Your task to perform on an android device: Go to Android settings Image 0: 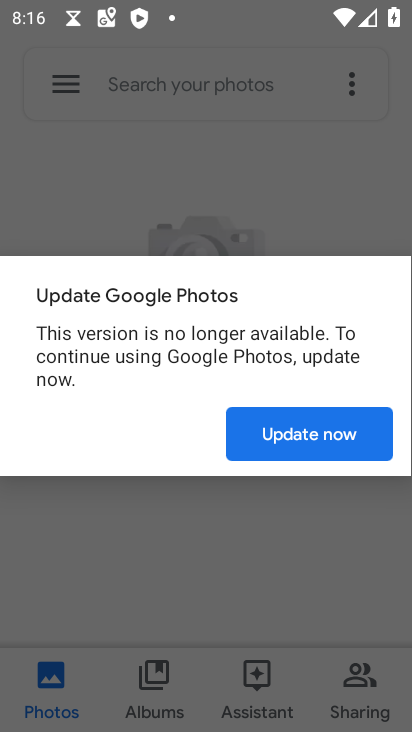
Step 0: press back button
Your task to perform on an android device: Go to Android settings Image 1: 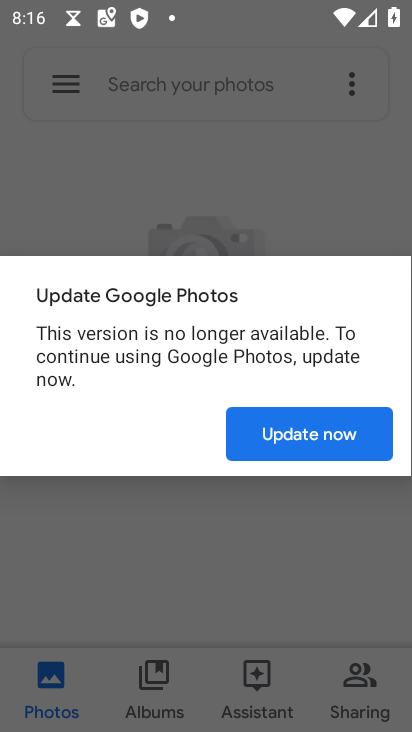
Step 1: press home button
Your task to perform on an android device: Go to Android settings Image 2: 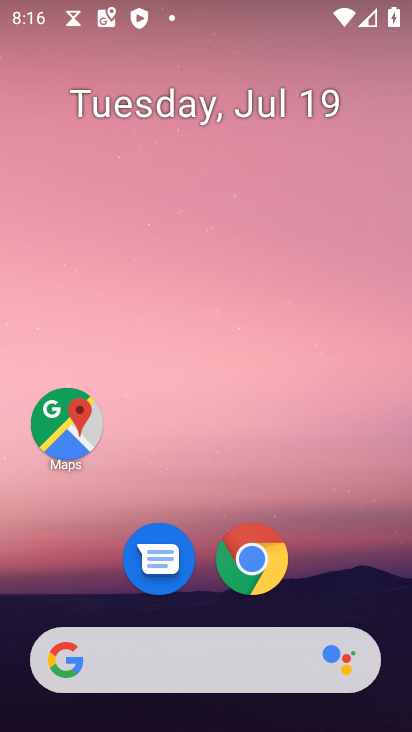
Step 2: drag from (71, 585) to (313, 11)
Your task to perform on an android device: Go to Android settings Image 3: 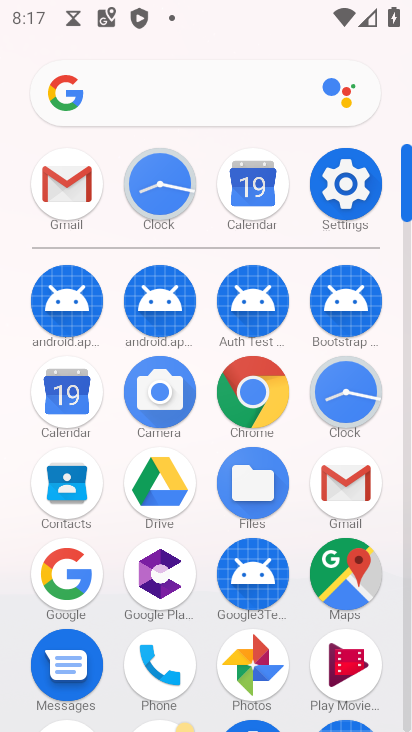
Step 3: click (342, 166)
Your task to perform on an android device: Go to Android settings Image 4: 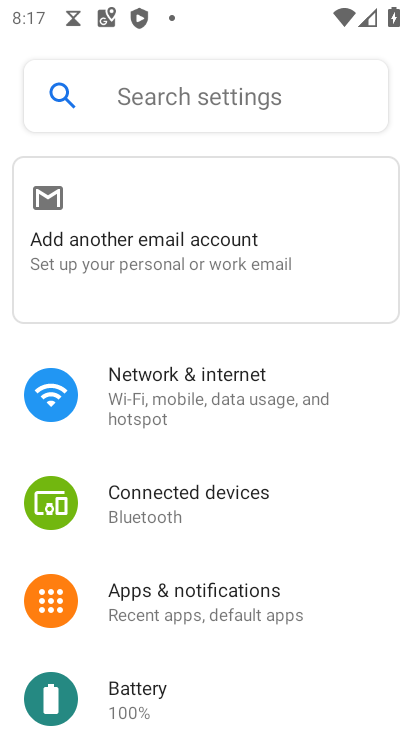
Step 4: drag from (146, 656) to (234, 19)
Your task to perform on an android device: Go to Android settings Image 5: 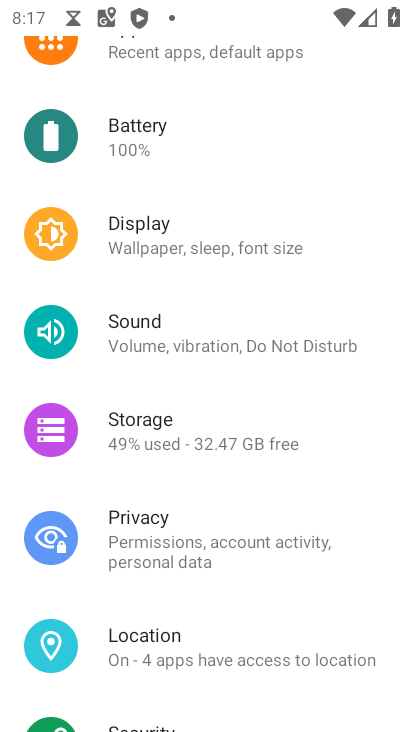
Step 5: drag from (203, 653) to (306, 15)
Your task to perform on an android device: Go to Android settings Image 6: 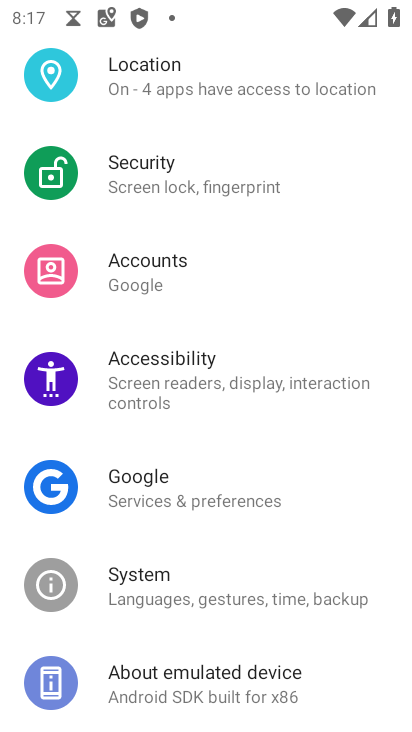
Step 6: drag from (187, 628) to (304, 4)
Your task to perform on an android device: Go to Android settings Image 7: 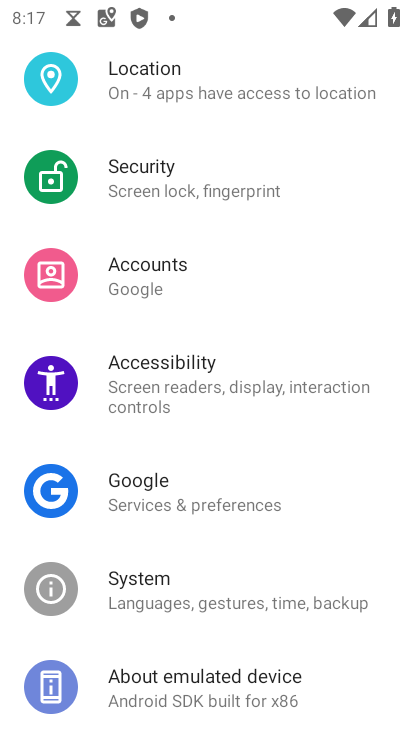
Step 7: click (142, 694)
Your task to perform on an android device: Go to Android settings Image 8: 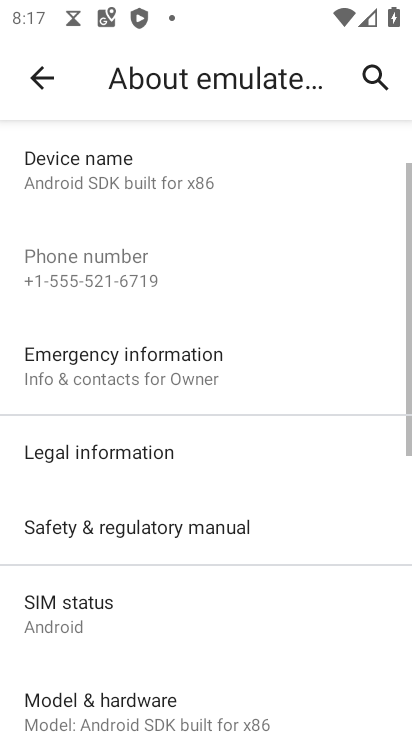
Step 8: drag from (152, 652) to (319, 62)
Your task to perform on an android device: Go to Android settings Image 9: 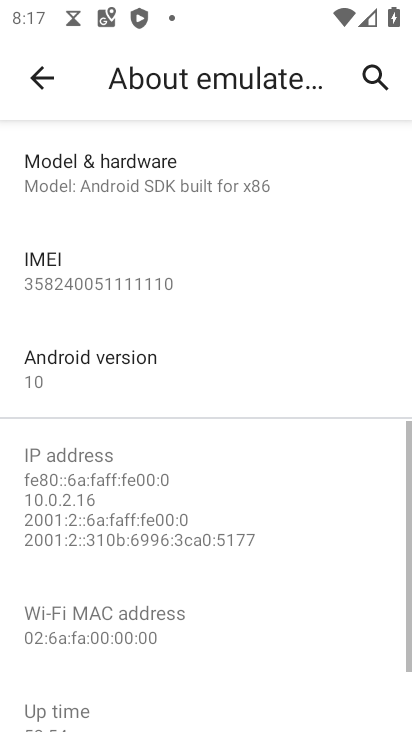
Step 9: click (58, 368)
Your task to perform on an android device: Go to Android settings Image 10: 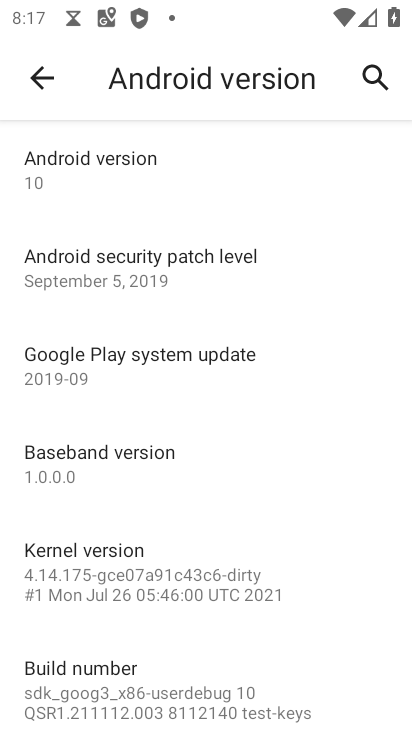
Step 10: click (98, 146)
Your task to perform on an android device: Go to Android settings Image 11: 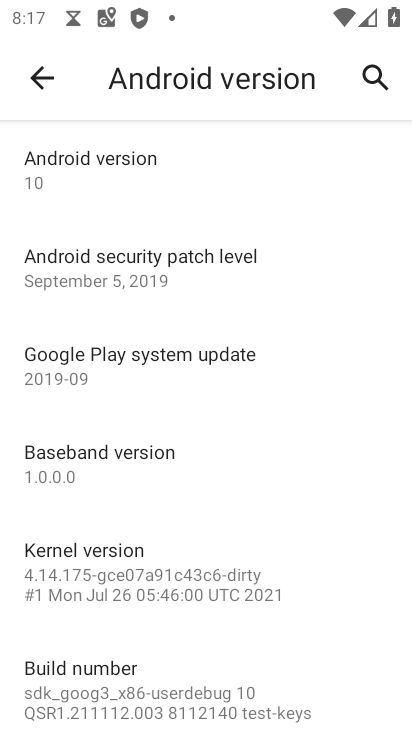
Step 11: task complete